Your task to perform on an android device: delete the emails in spam in the gmail app Image 0: 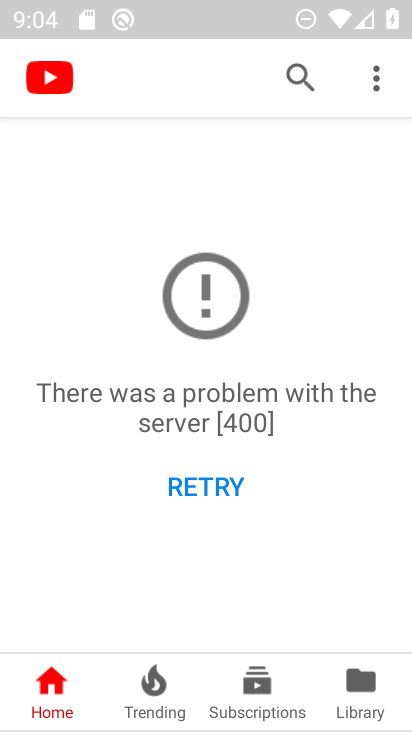
Step 0: press home button
Your task to perform on an android device: delete the emails in spam in the gmail app Image 1: 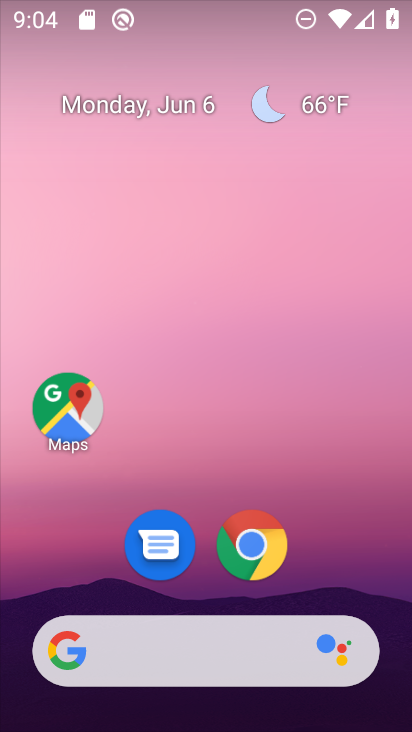
Step 1: drag from (303, 571) to (311, 0)
Your task to perform on an android device: delete the emails in spam in the gmail app Image 2: 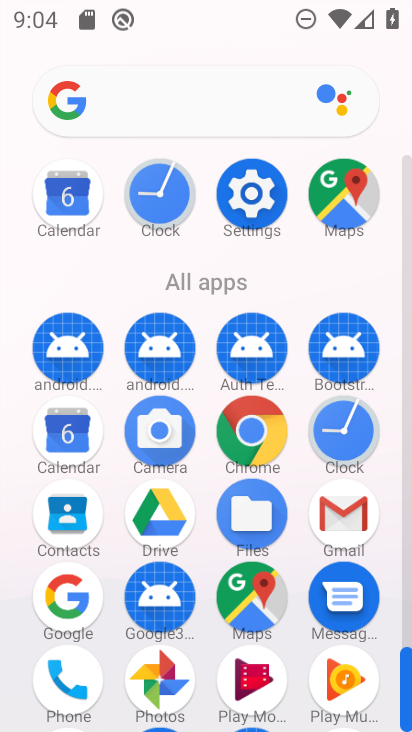
Step 2: click (340, 513)
Your task to perform on an android device: delete the emails in spam in the gmail app Image 3: 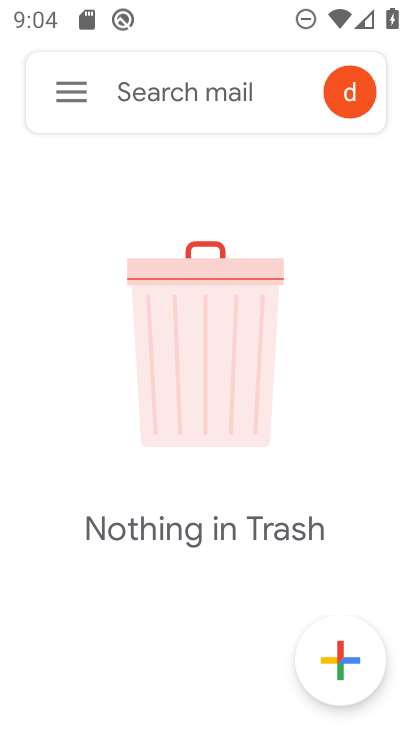
Step 3: click (45, 85)
Your task to perform on an android device: delete the emails in spam in the gmail app Image 4: 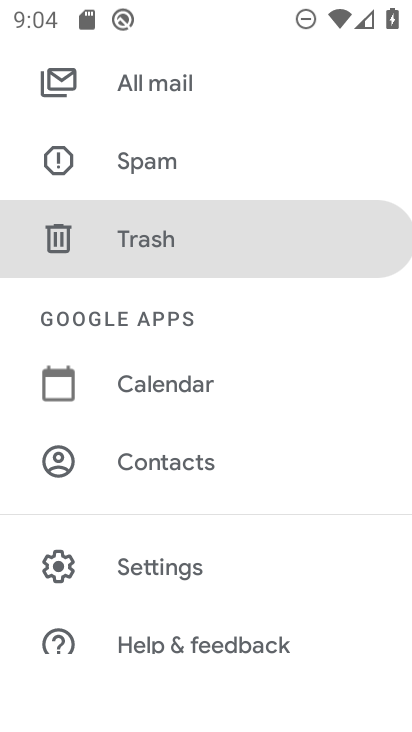
Step 4: click (222, 224)
Your task to perform on an android device: delete the emails in spam in the gmail app Image 5: 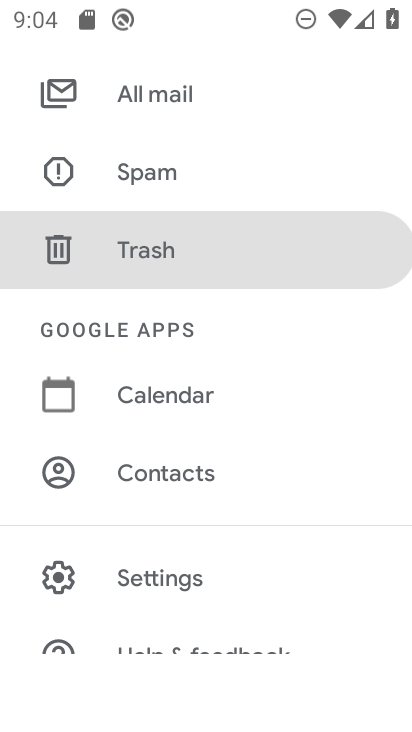
Step 5: click (156, 174)
Your task to perform on an android device: delete the emails in spam in the gmail app Image 6: 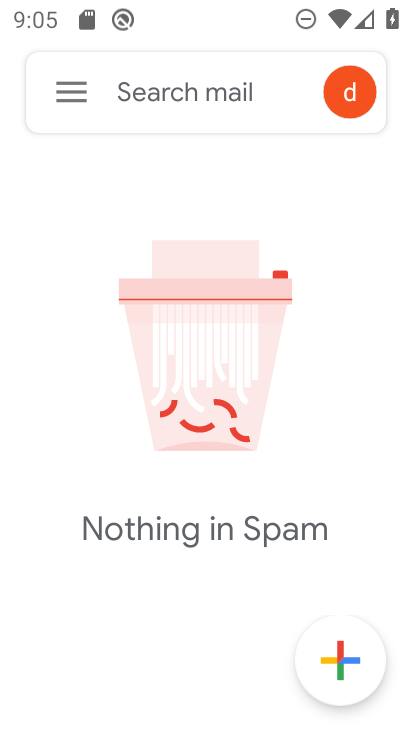
Step 6: task complete